Your task to perform on an android device: add a contact in the contacts app Image 0: 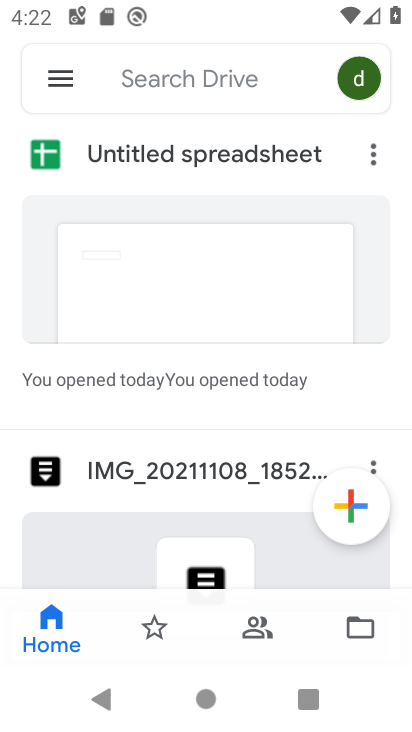
Step 0: press home button
Your task to perform on an android device: add a contact in the contacts app Image 1: 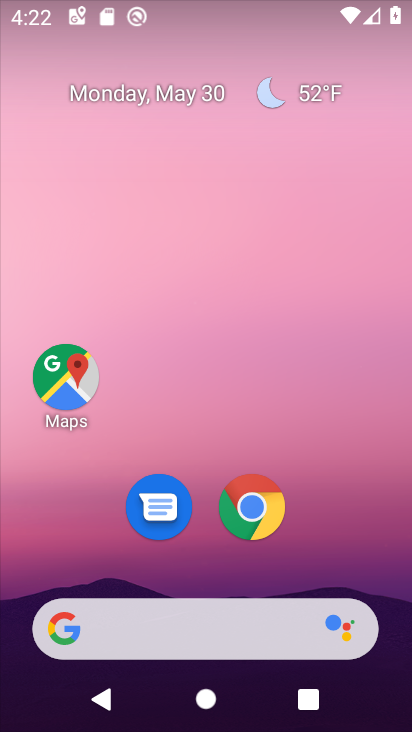
Step 1: drag from (283, 555) to (288, 123)
Your task to perform on an android device: add a contact in the contacts app Image 2: 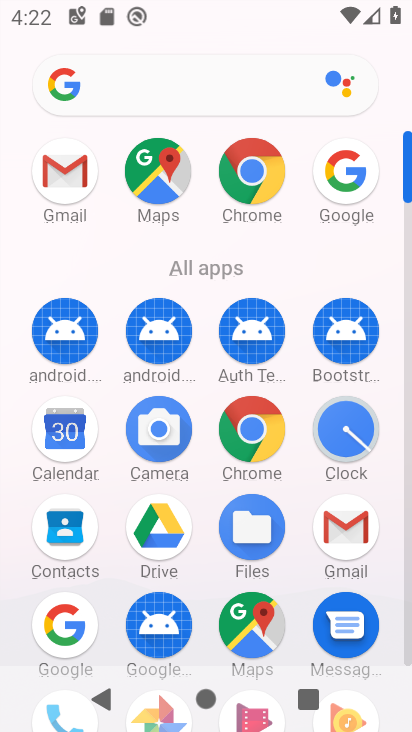
Step 2: click (62, 518)
Your task to perform on an android device: add a contact in the contacts app Image 3: 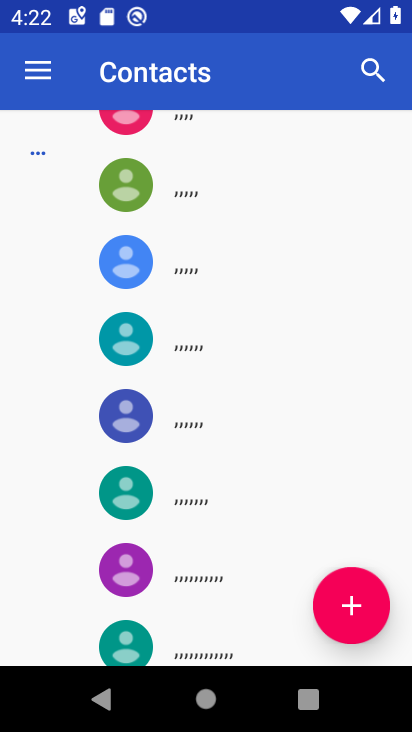
Step 3: click (378, 608)
Your task to perform on an android device: add a contact in the contacts app Image 4: 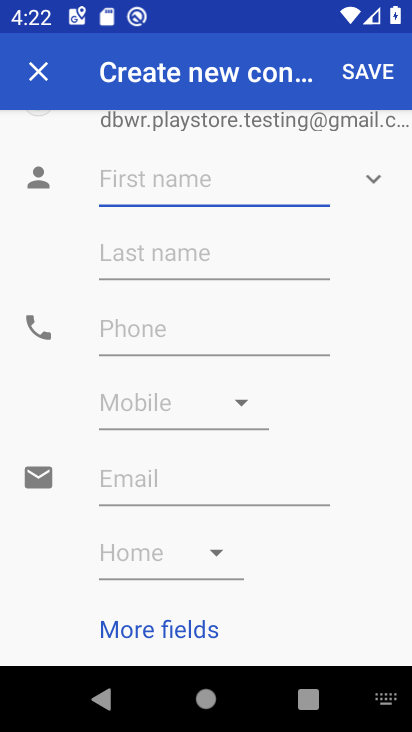
Step 4: type ",lk,l"
Your task to perform on an android device: add a contact in the contacts app Image 5: 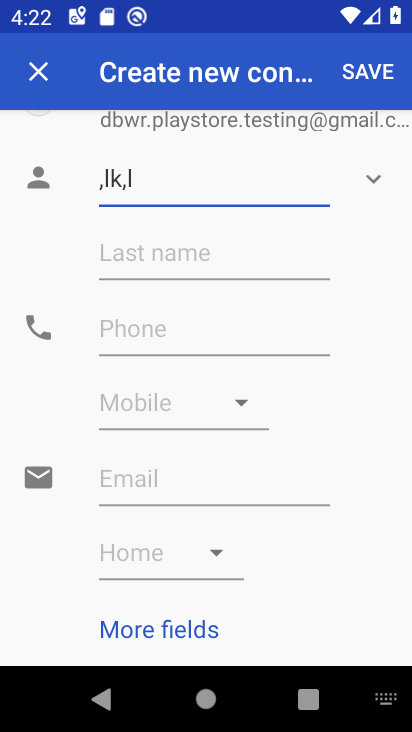
Step 5: click (137, 325)
Your task to perform on an android device: add a contact in the contacts app Image 6: 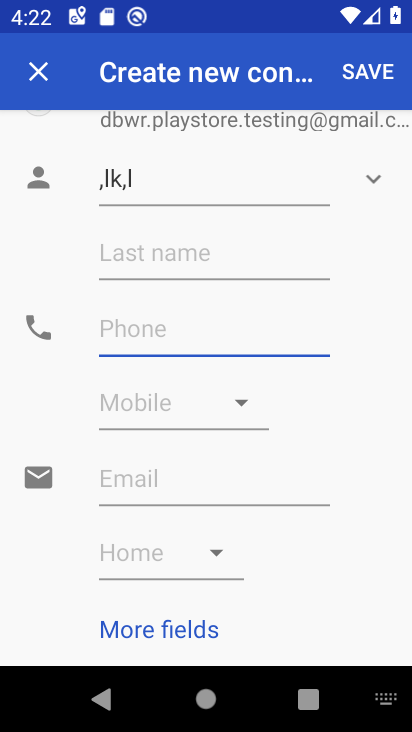
Step 6: type "8656"
Your task to perform on an android device: add a contact in the contacts app Image 7: 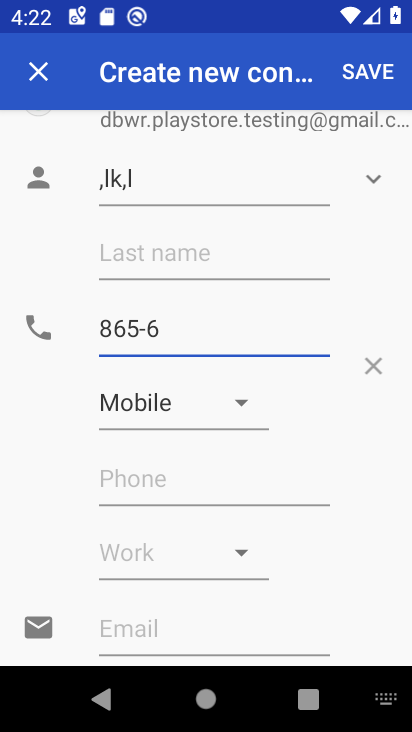
Step 7: click (368, 71)
Your task to perform on an android device: add a contact in the contacts app Image 8: 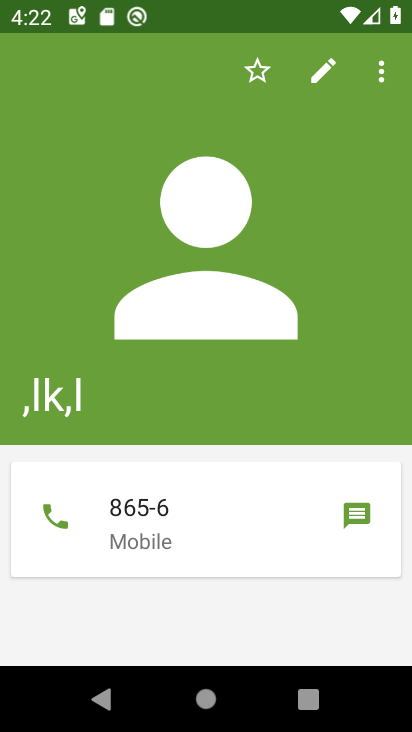
Step 8: task complete